Your task to perform on an android device: Open location settings Image 0: 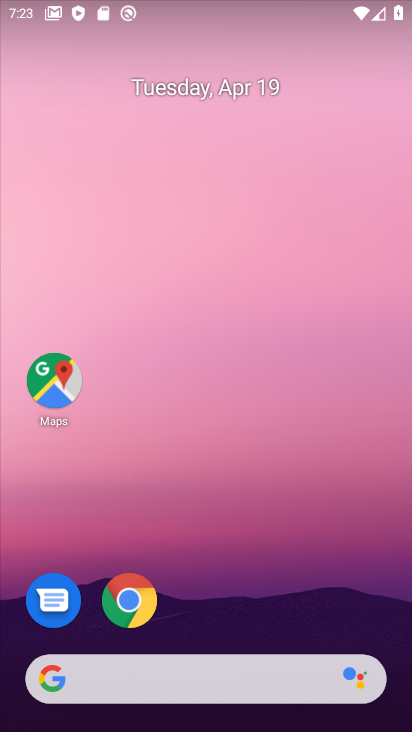
Step 0: drag from (361, 491) to (281, 163)
Your task to perform on an android device: Open location settings Image 1: 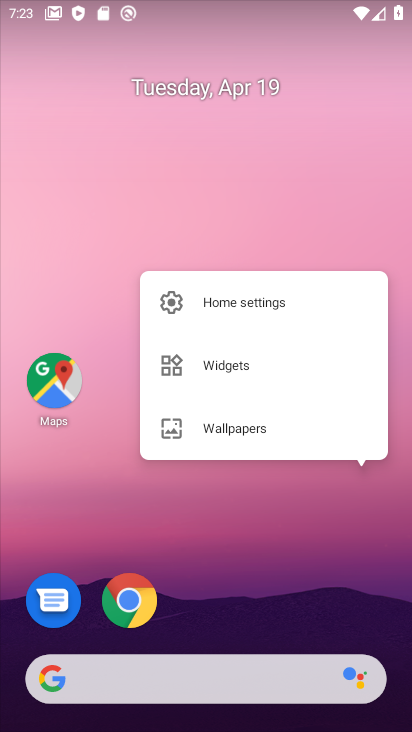
Step 1: click (281, 163)
Your task to perform on an android device: Open location settings Image 2: 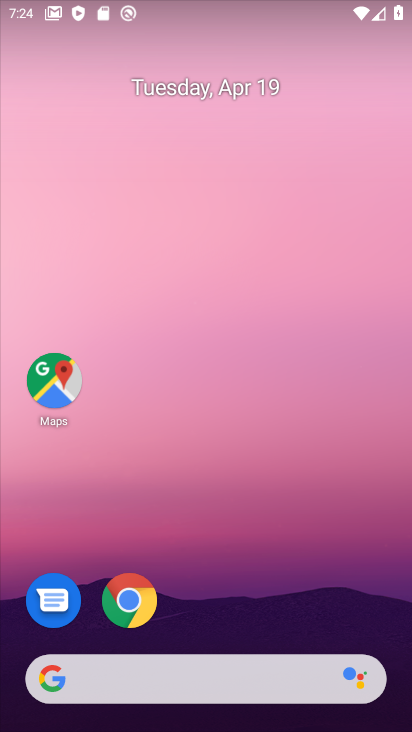
Step 2: drag from (245, 611) to (326, 3)
Your task to perform on an android device: Open location settings Image 3: 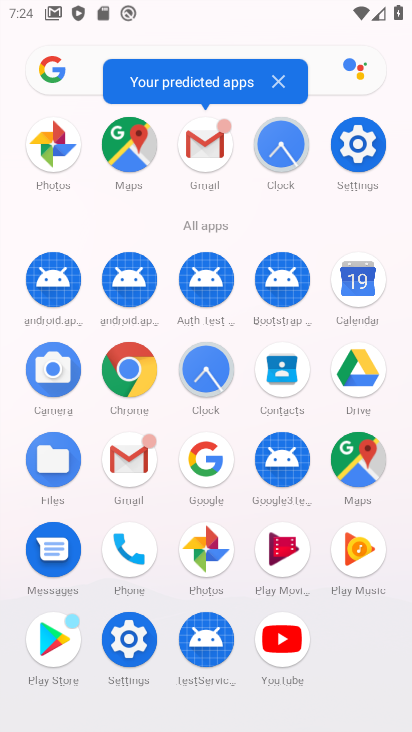
Step 3: click (352, 131)
Your task to perform on an android device: Open location settings Image 4: 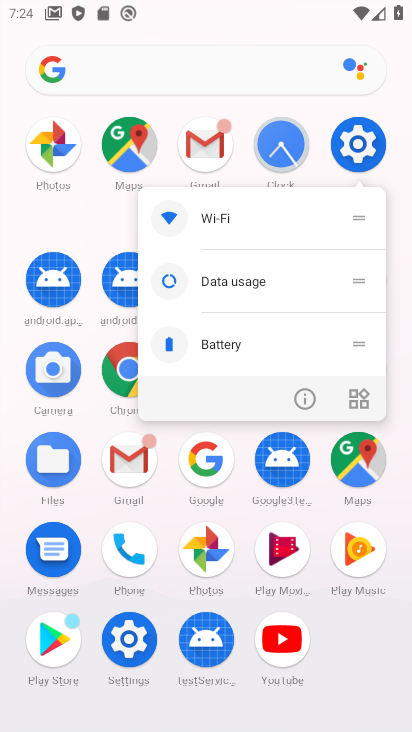
Step 4: click (352, 131)
Your task to perform on an android device: Open location settings Image 5: 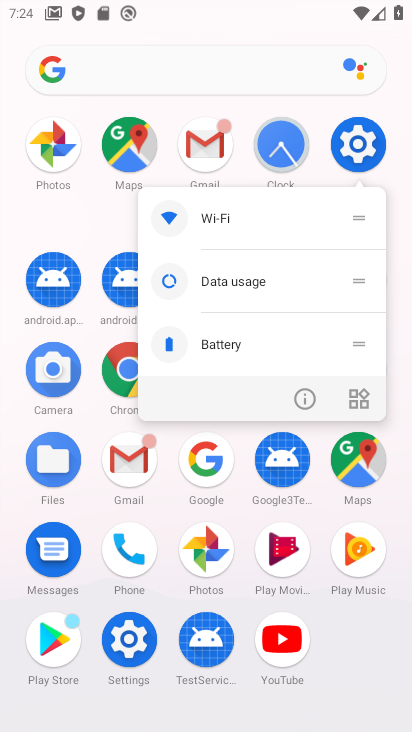
Step 5: click (362, 157)
Your task to perform on an android device: Open location settings Image 6: 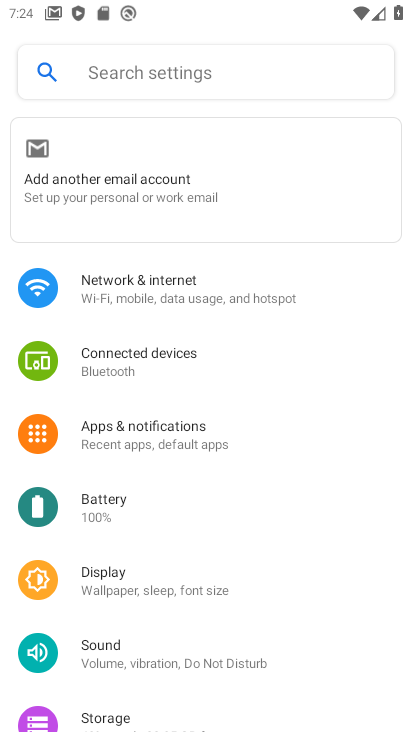
Step 6: drag from (140, 601) to (236, 173)
Your task to perform on an android device: Open location settings Image 7: 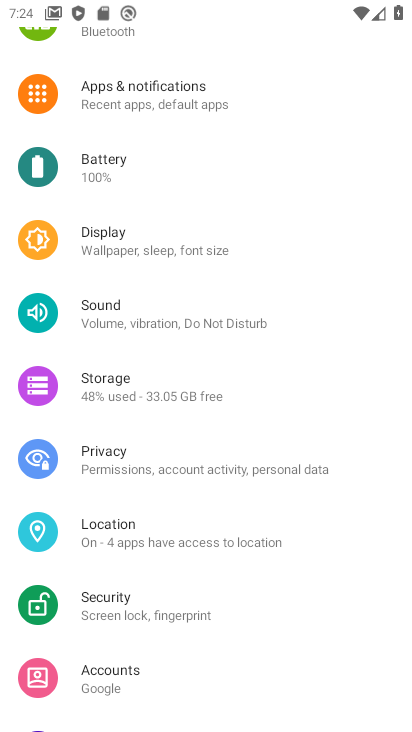
Step 7: click (149, 527)
Your task to perform on an android device: Open location settings Image 8: 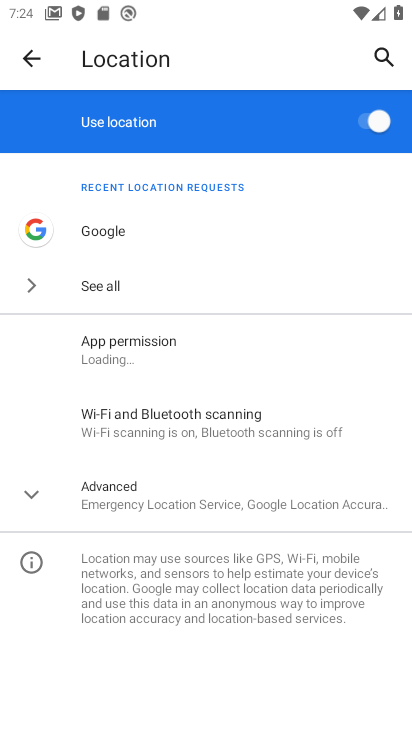
Step 8: task complete